Your task to perform on an android device: Open the web browser Image 0: 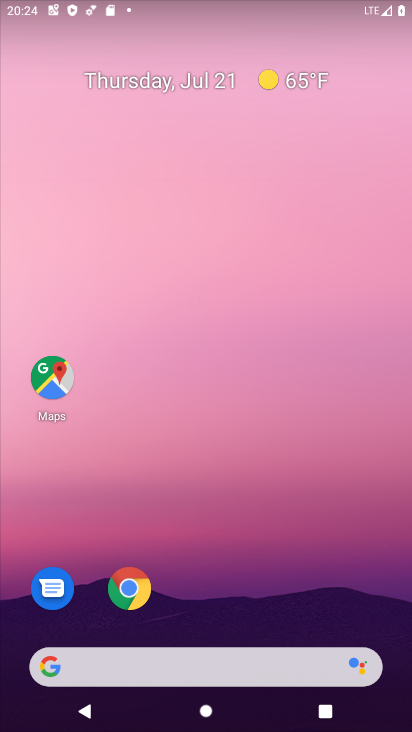
Step 0: click (175, 656)
Your task to perform on an android device: Open the web browser Image 1: 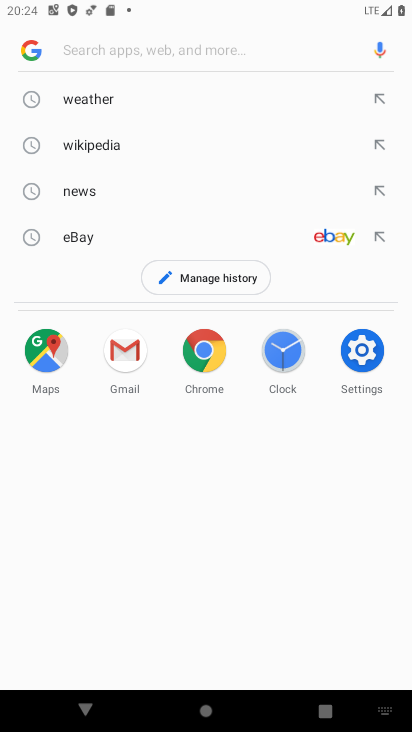
Step 1: task complete